Your task to perform on an android device: turn on wifi Image 0: 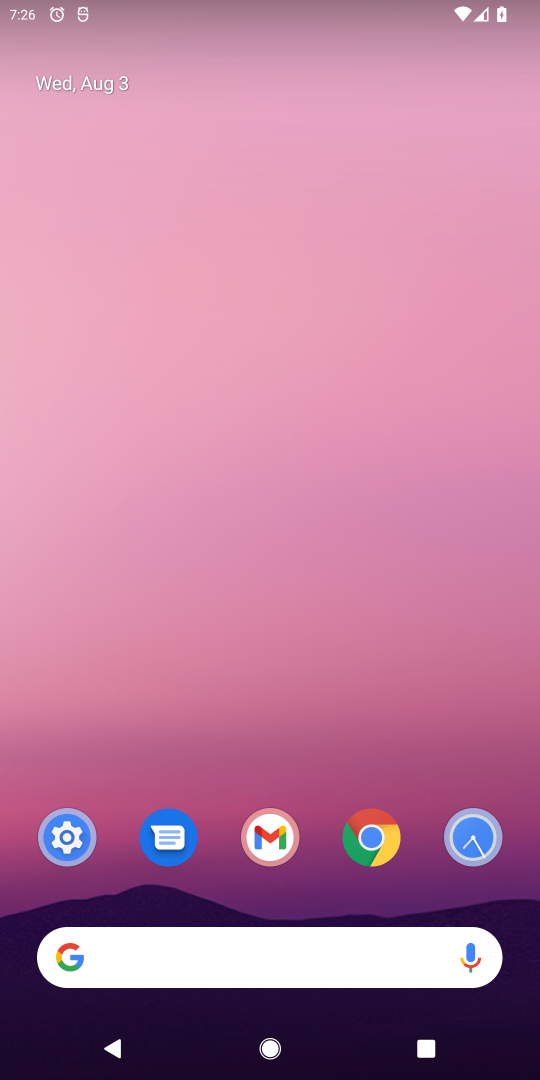
Step 0: drag from (273, 7) to (311, 529)
Your task to perform on an android device: turn on wifi Image 1: 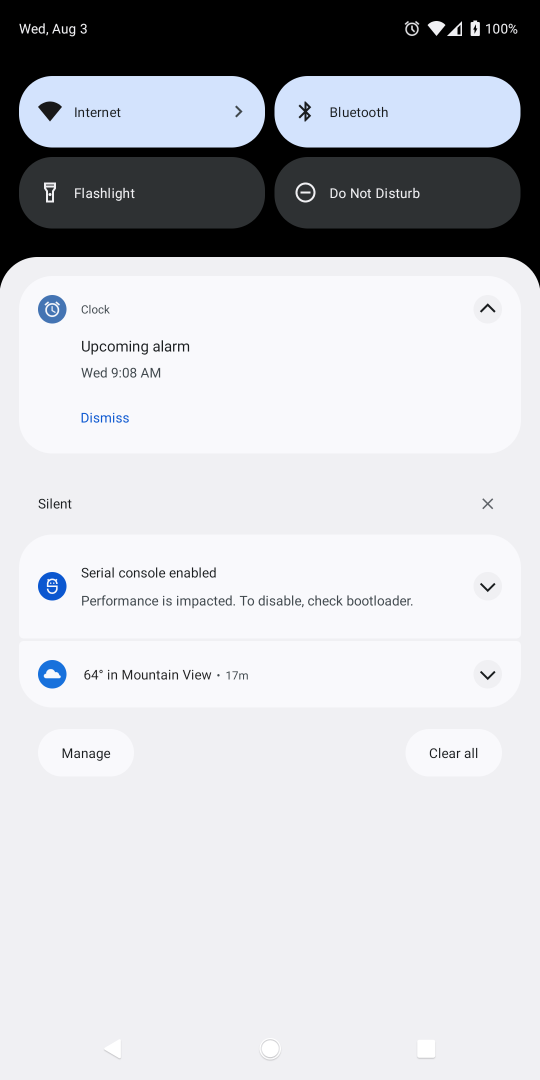
Step 1: click (241, 114)
Your task to perform on an android device: turn on wifi Image 2: 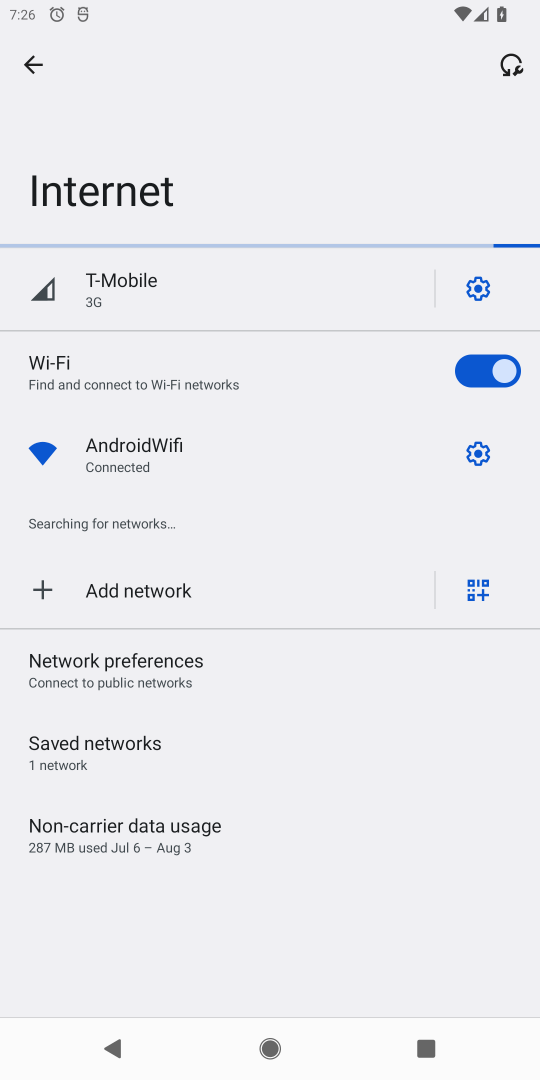
Step 2: task complete